Your task to perform on an android device: check storage Image 0: 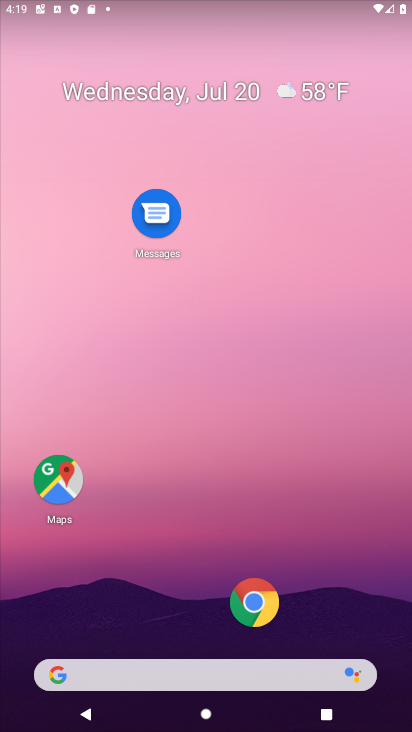
Step 0: drag from (200, 258) to (197, 184)
Your task to perform on an android device: check storage Image 1: 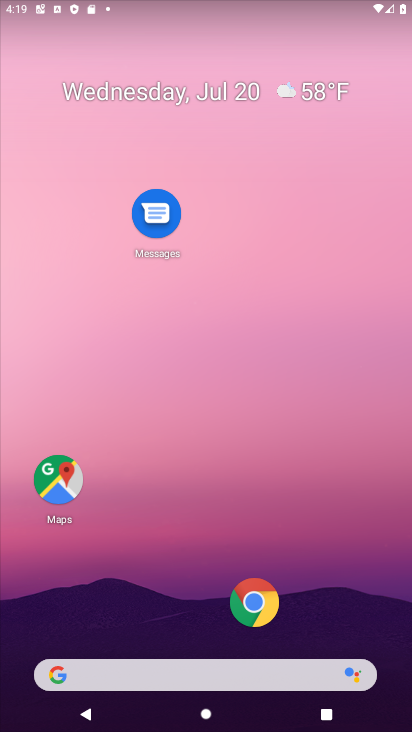
Step 1: click (206, 519)
Your task to perform on an android device: check storage Image 2: 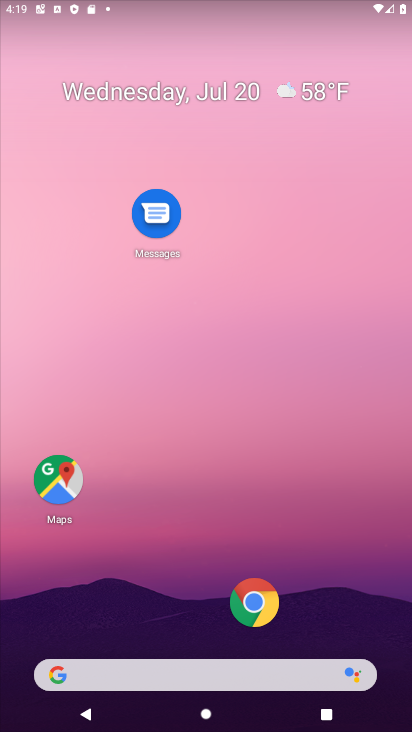
Step 2: drag from (179, 573) to (207, 18)
Your task to perform on an android device: check storage Image 3: 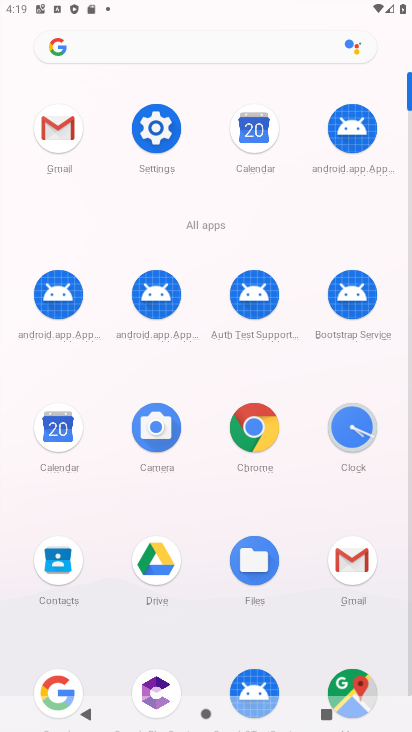
Step 3: click (154, 131)
Your task to perform on an android device: check storage Image 4: 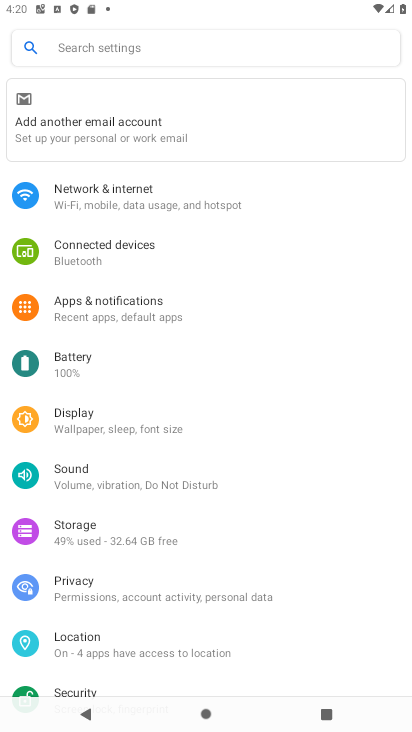
Step 4: click (80, 541)
Your task to perform on an android device: check storage Image 5: 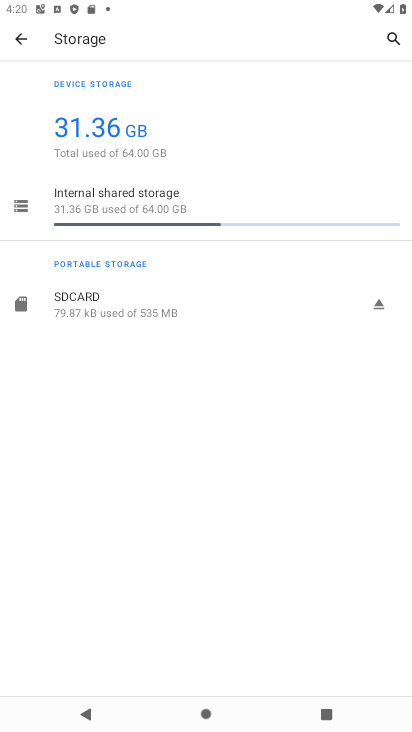
Step 5: task complete